Your task to perform on an android device: change the clock display to analog Image 0: 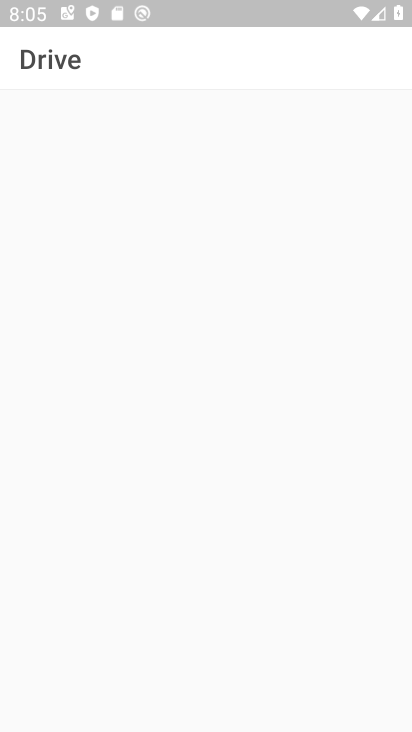
Step 0: press home button
Your task to perform on an android device: change the clock display to analog Image 1: 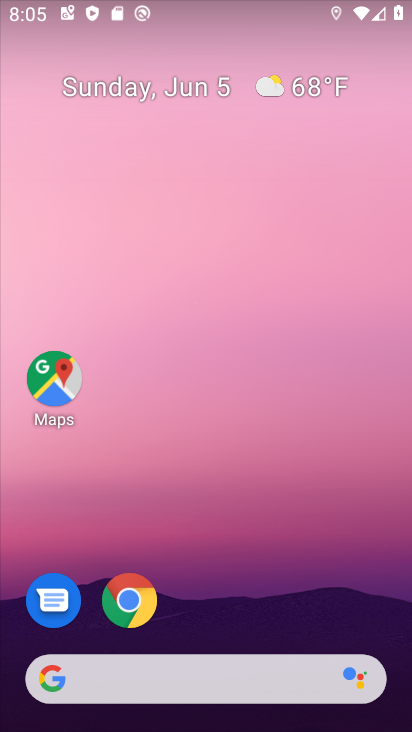
Step 1: drag from (214, 531) to (211, 10)
Your task to perform on an android device: change the clock display to analog Image 2: 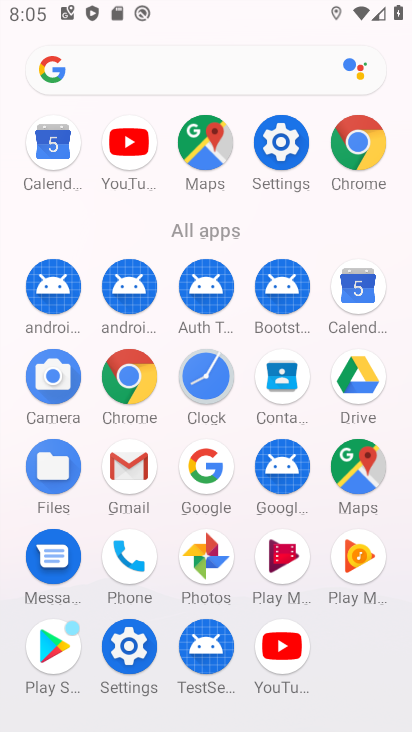
Step 2: click (203, 384)
Your task to perform on an android device: change the clock display to analog Image 3: 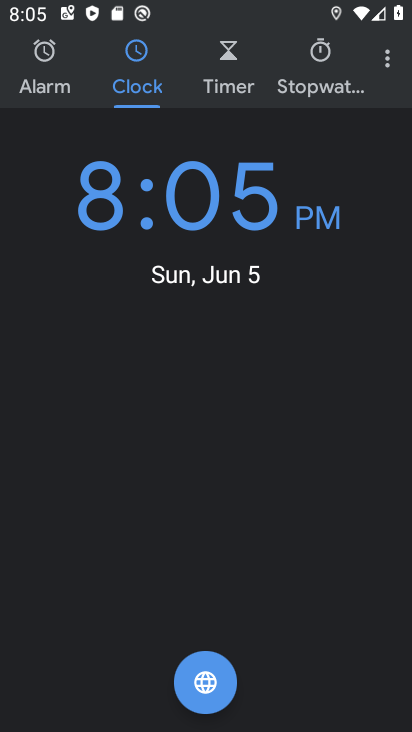
Step 3: click (381, 61)
Your task to perform on an android device: change the clock display to analog Image 4: 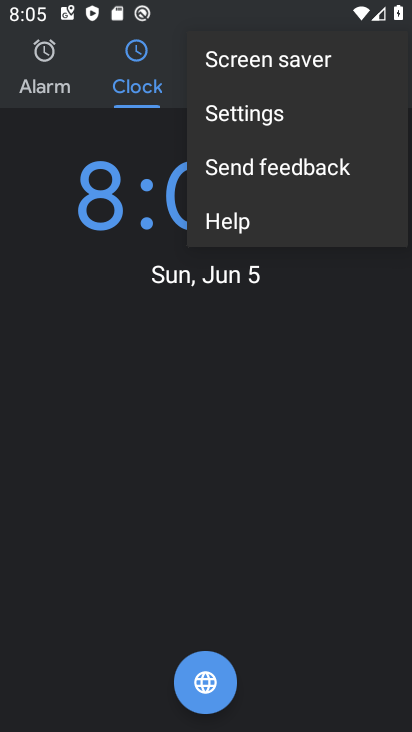
Step 4: click (312, 118)
Your task to perform on an android device: change the clock display to analog Image 5: 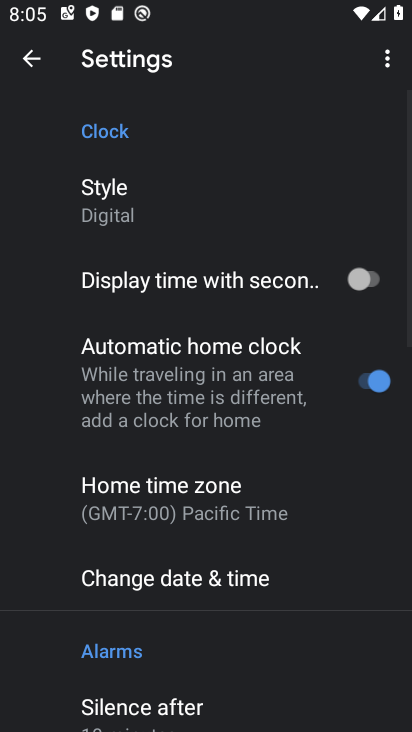
Step 5: click (176, 209)
Your task to perform on an android device: change the clock display to analog Image 6: 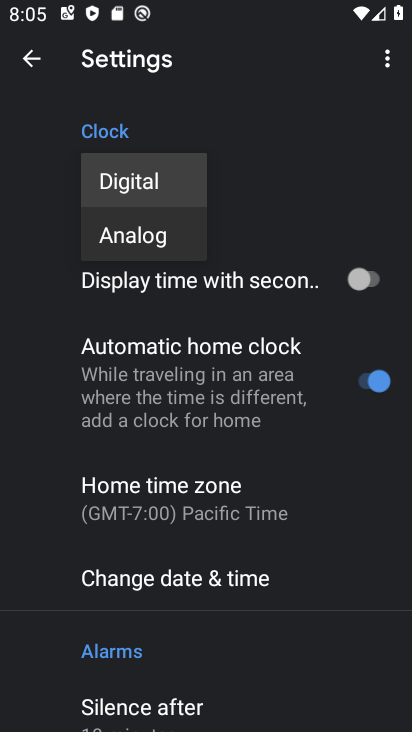
Step 6: click (168, 250)
Your task to perform on an android device: change the clock display to analog Image 7: 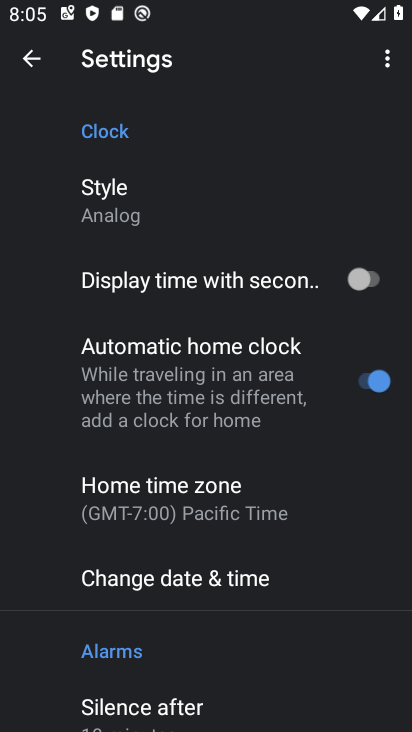
Step 7: task complete